Your task to perform on an android device: Open sound settings Image 0: 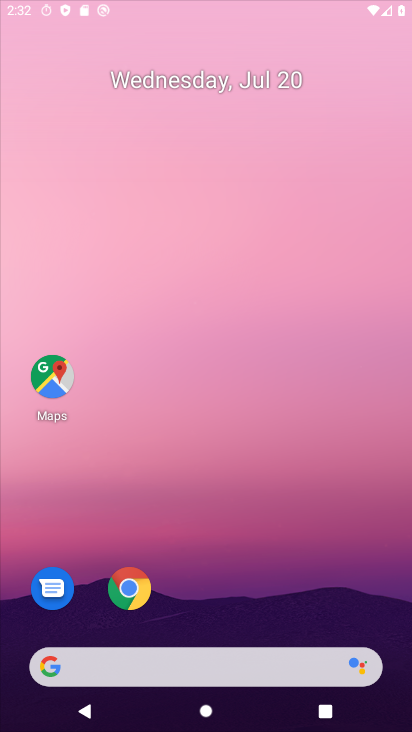
Step 0: click (203, 287)
Your task to perform on an android device: Open sound settings Image 1: 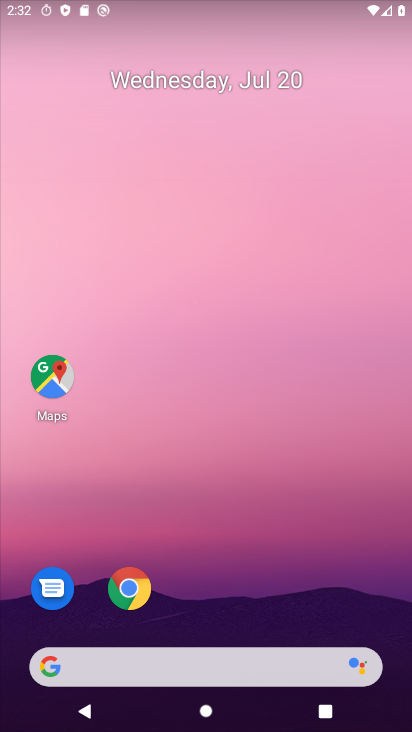
Step 1: drag from (200, 581) to (255, 238)
Your task to perform on an android device: Open sound settings Image 2: 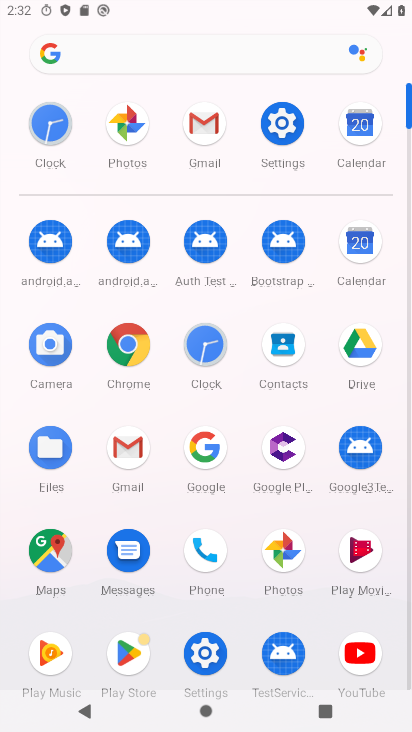
Step 2: click (210, 649)
Your task to perform on an android device: Open sound settings Image 3: 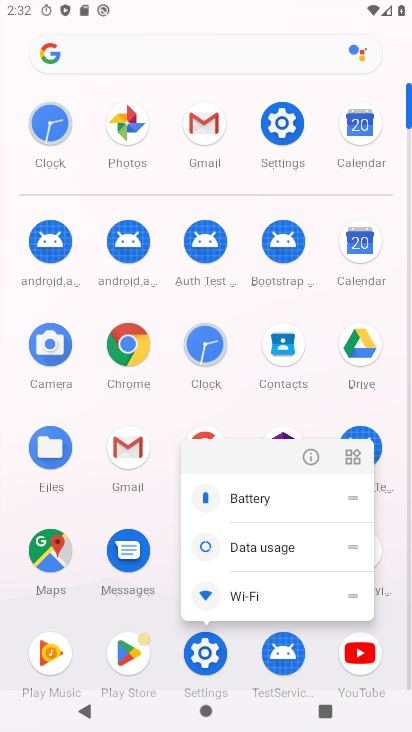
Step 3: click (315, 452)
Your task to perform on an android device: Open sound settings Image 4: 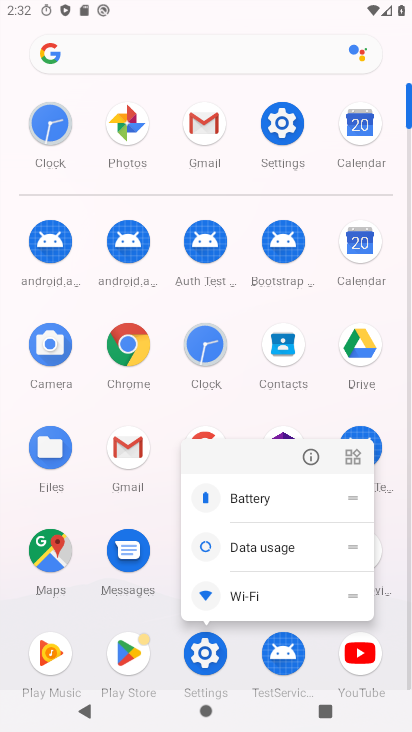
Step 4: click (314, 451)
Your task to perform on an android device: Open sound settings Image 5: 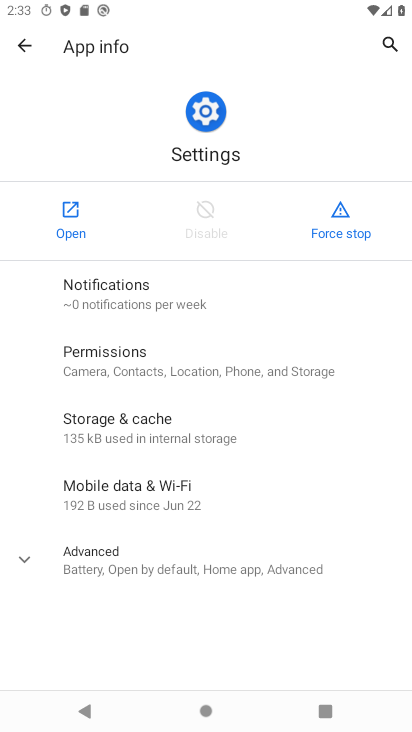
Step 5: click (75, 221)
Your task to perform on an android device: Open sound settings Image 6: 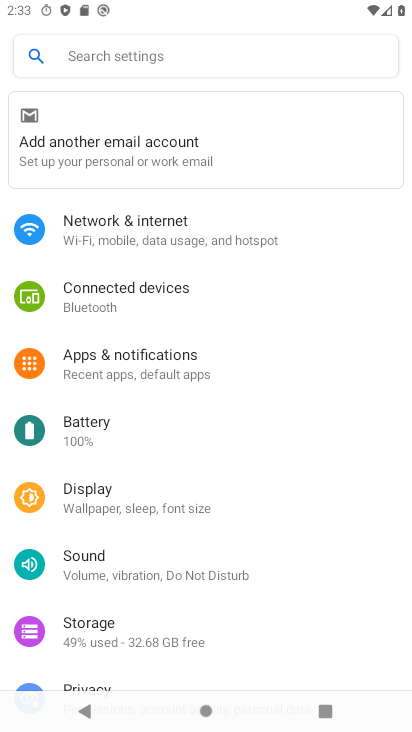
Step 6: click (91, 573)
Your task to perform on an android device: Open sound settings Image 7: 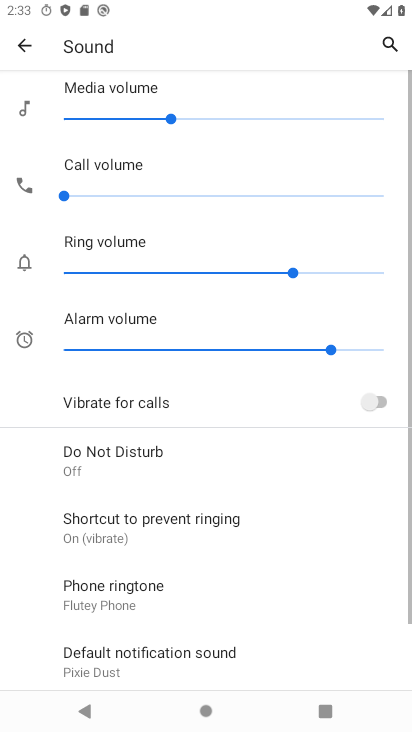
Step 7: task complete